Your task to perform on an android device: Show me popular videos on Youtube Image 0: 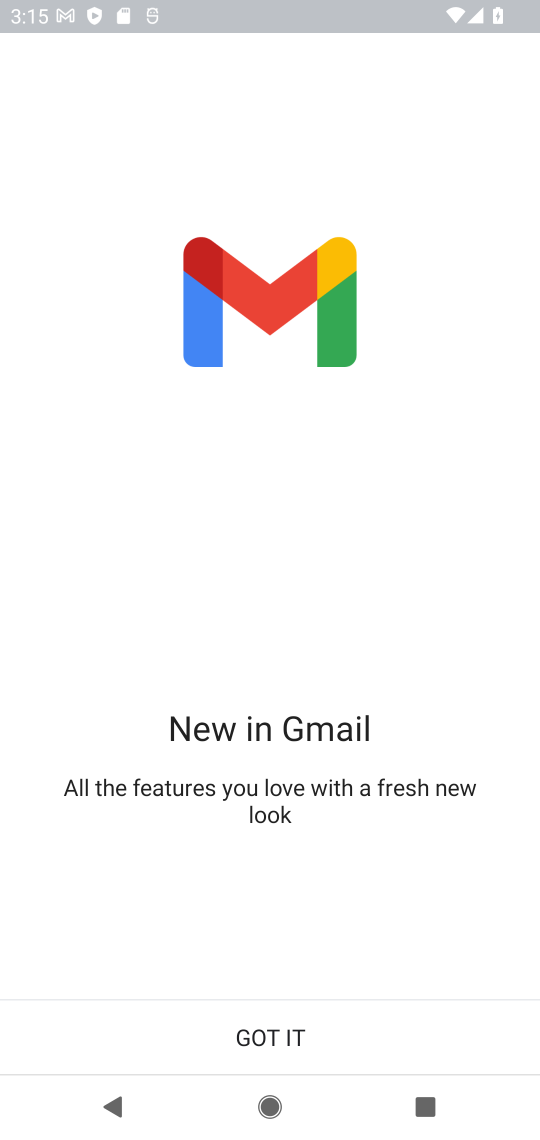
Step 0: press home button
Your task to perform on an android device: Show me popular videos on Youtube Image 1: 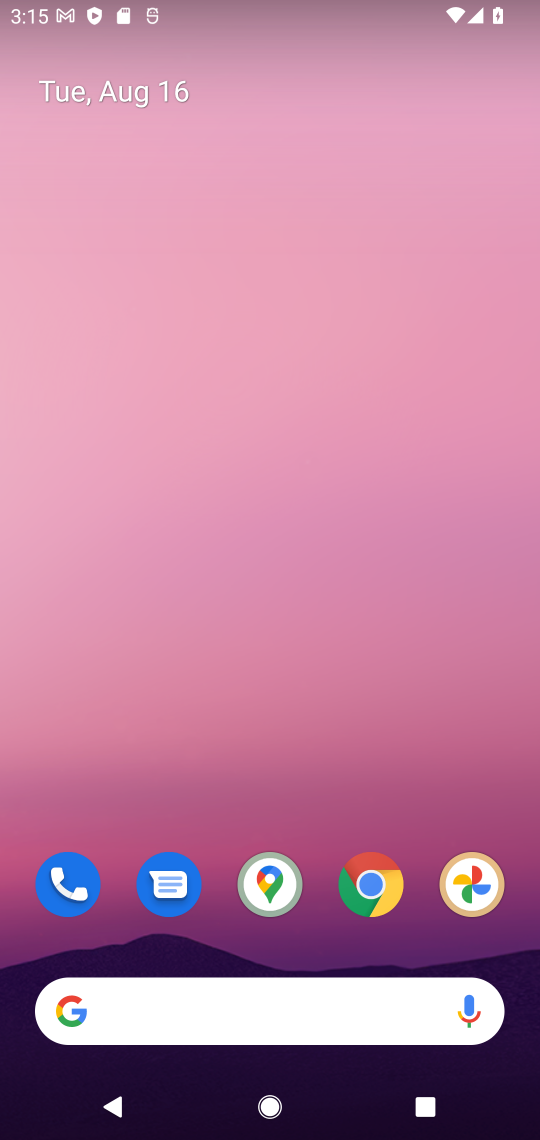
Step 1: drag from (291, 806) to (238, 170)
Your task to perform on an android device: Show me popular videos on Youtube Image 2: 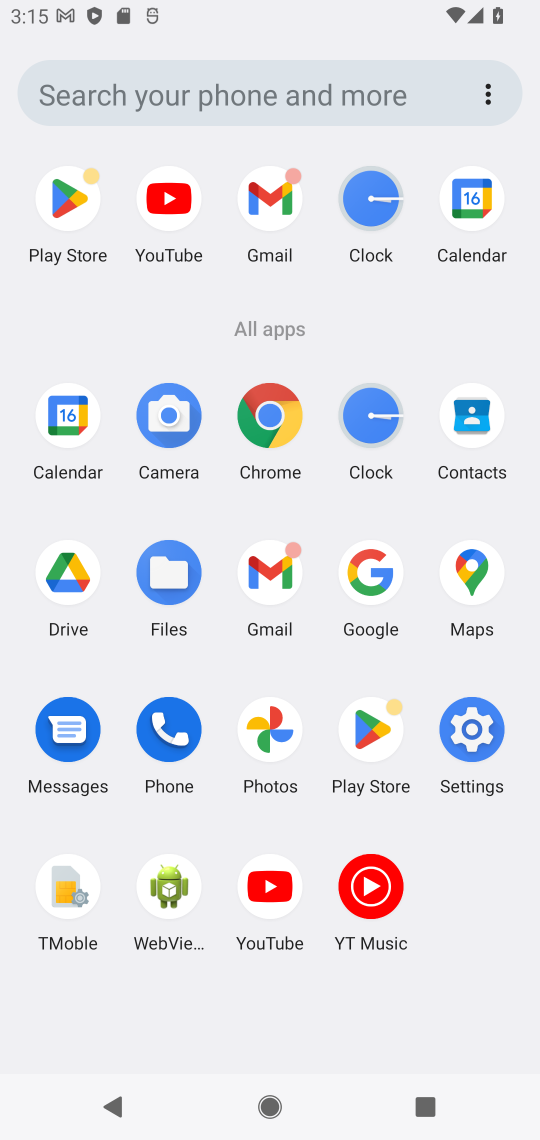
Step 2: click (183, 204)
Your task to perform on an android device: Show me popular videos on Youtube Image 3: 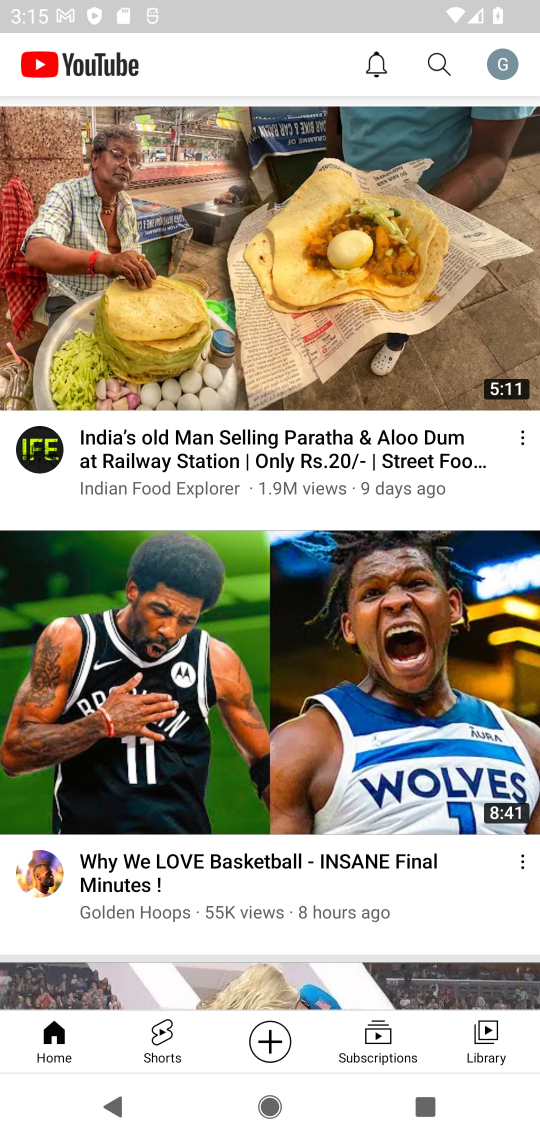
Step 3: click (432, 51)
Your task to perform on an android device: Show me popular videos on Youtube Image 4: 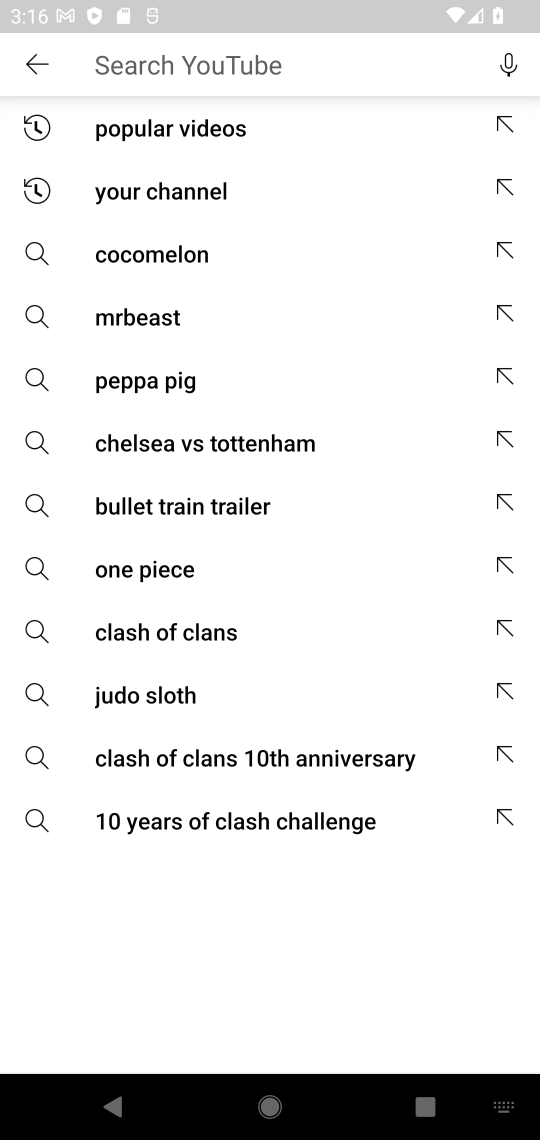
Step 4: type "popular videos"
Your task to perform on an android device: Show me popular videos on Youtube Image 5: 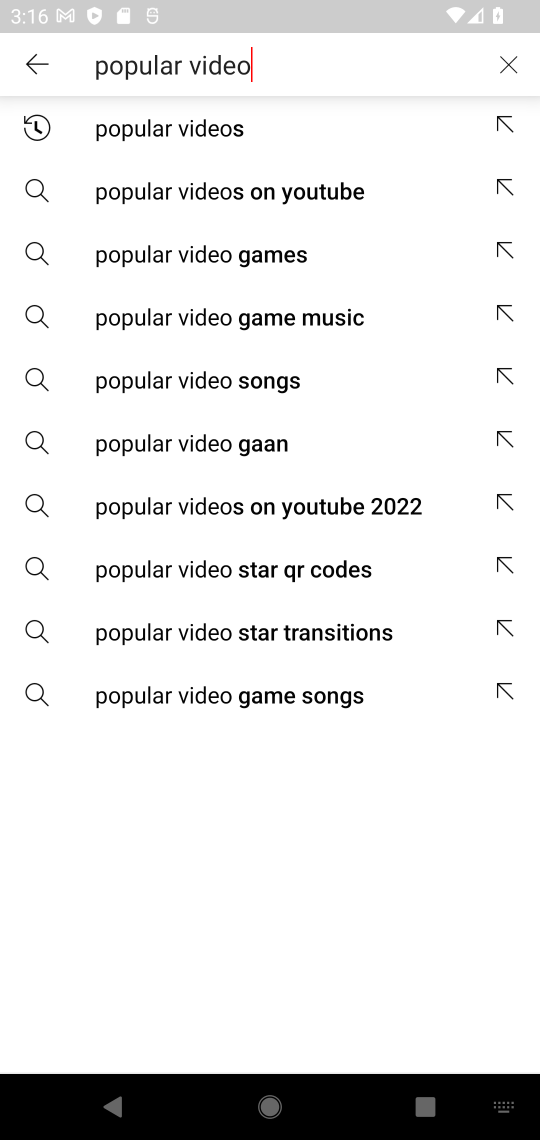
Step 5: type ""
Your task to perform on an android device: Show me popular videos on Youtube Image 6: 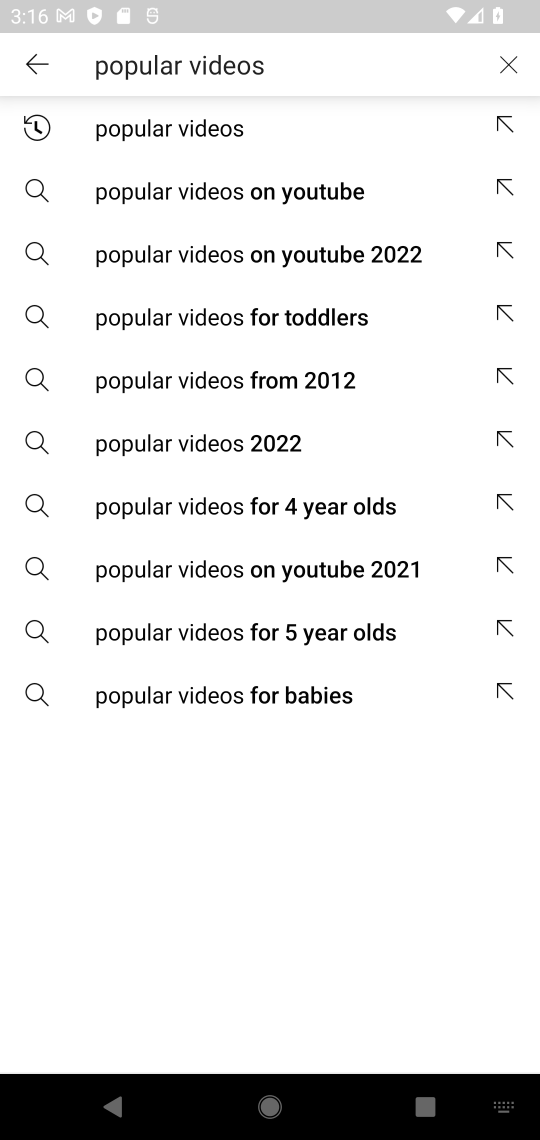
Step 6: click (181, 131)
Your task to perform on an android device: Show me popular videos on Youtube Image 7: 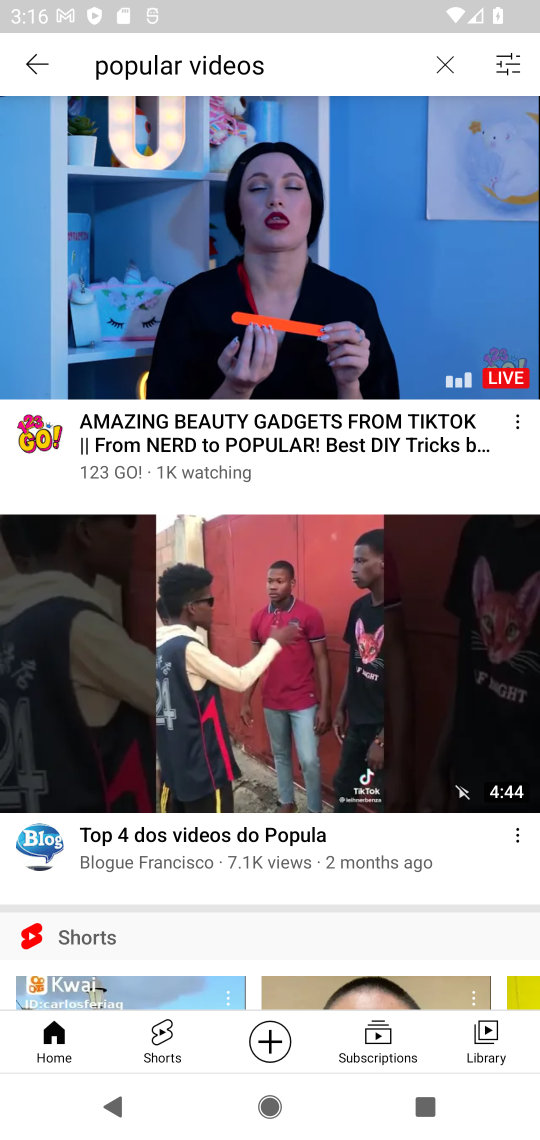
Step 7: task complete